Your task to perform on an android device: Go to wifi settings Image 0: 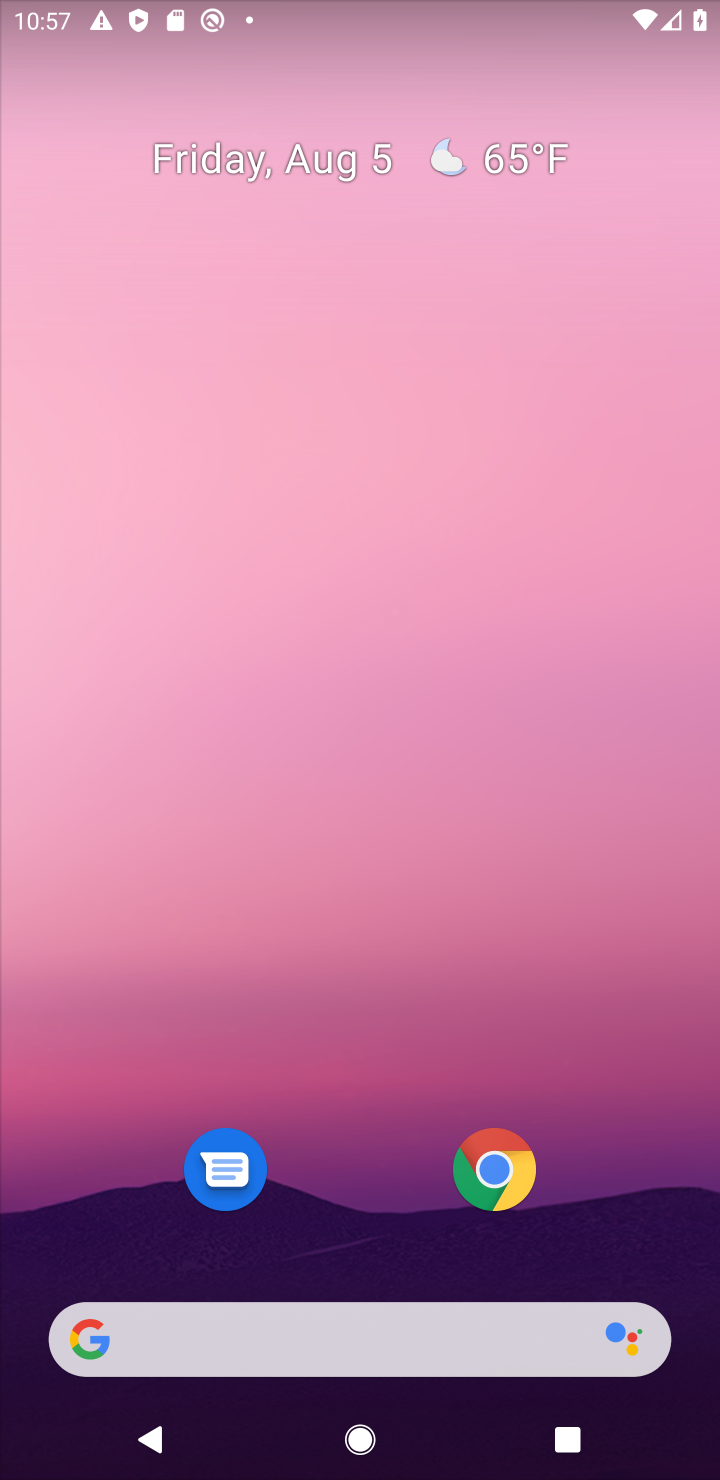
Step 0: drag from (358, 811) to (441, 2)
Your task to perform on an android device: Go to wifi settings Image 1: 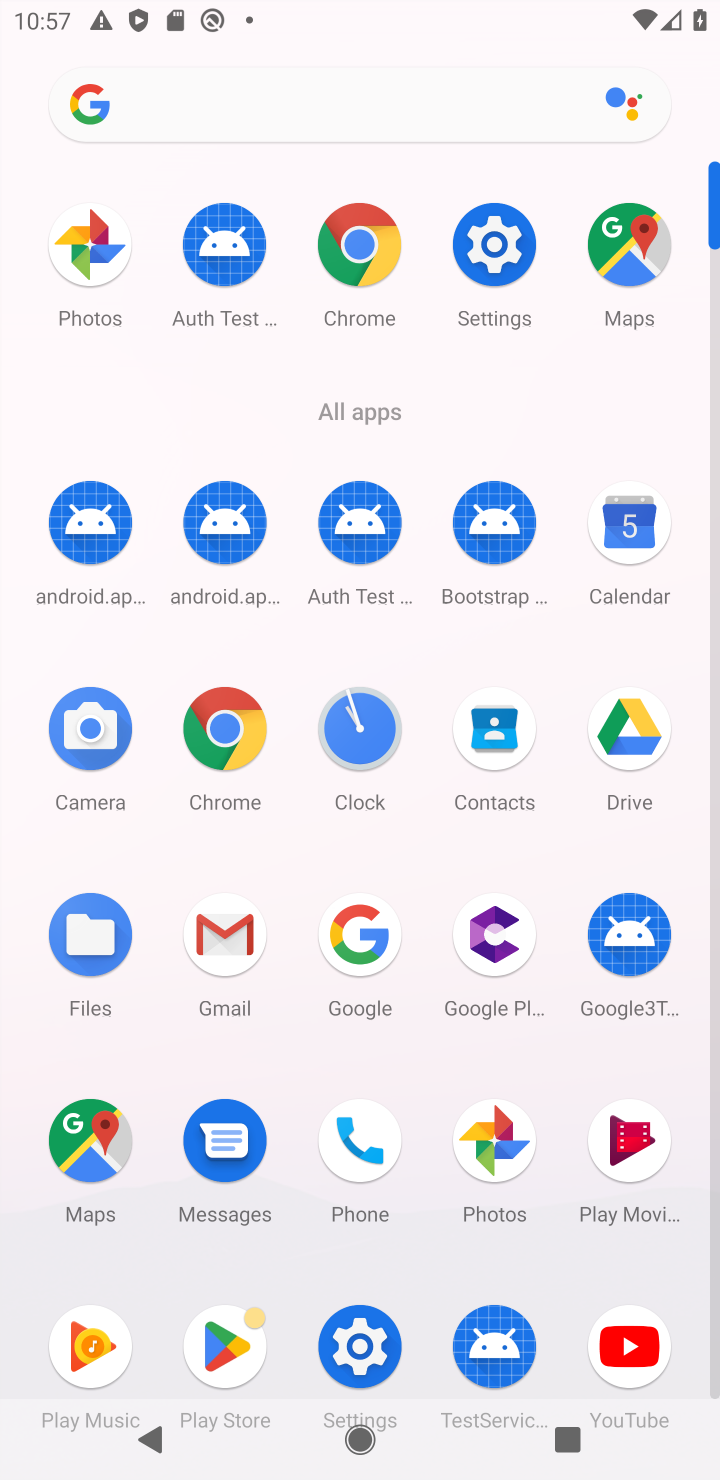
Step 1: click (475, 215)
Your task to perform on an android device: Go to wifi settings Image 2: 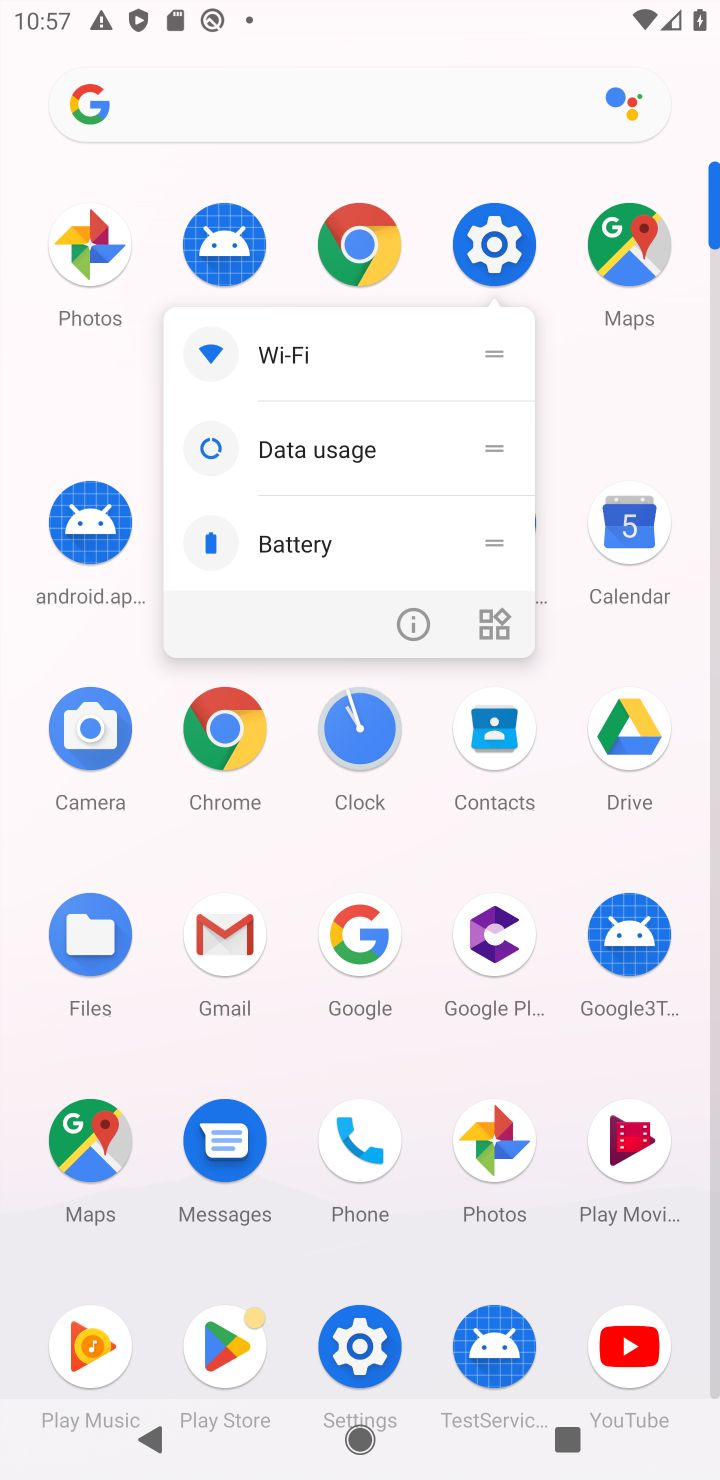
Step 2: click (505, 216)
Your task to perform on an android device: Go to wifi settings Image 3: 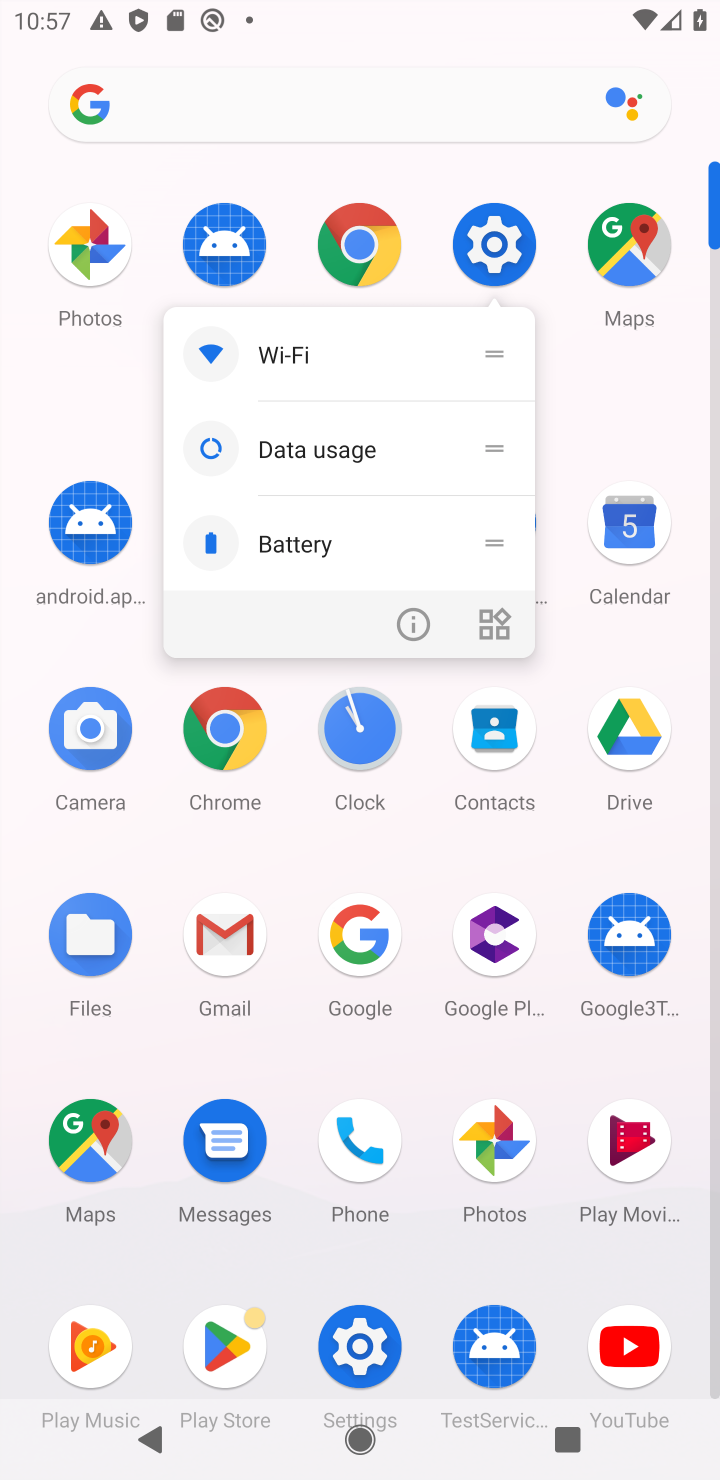
Step 3: click (488, 243)
Your task to perform on an android device: Go to wifi settings Image 4: 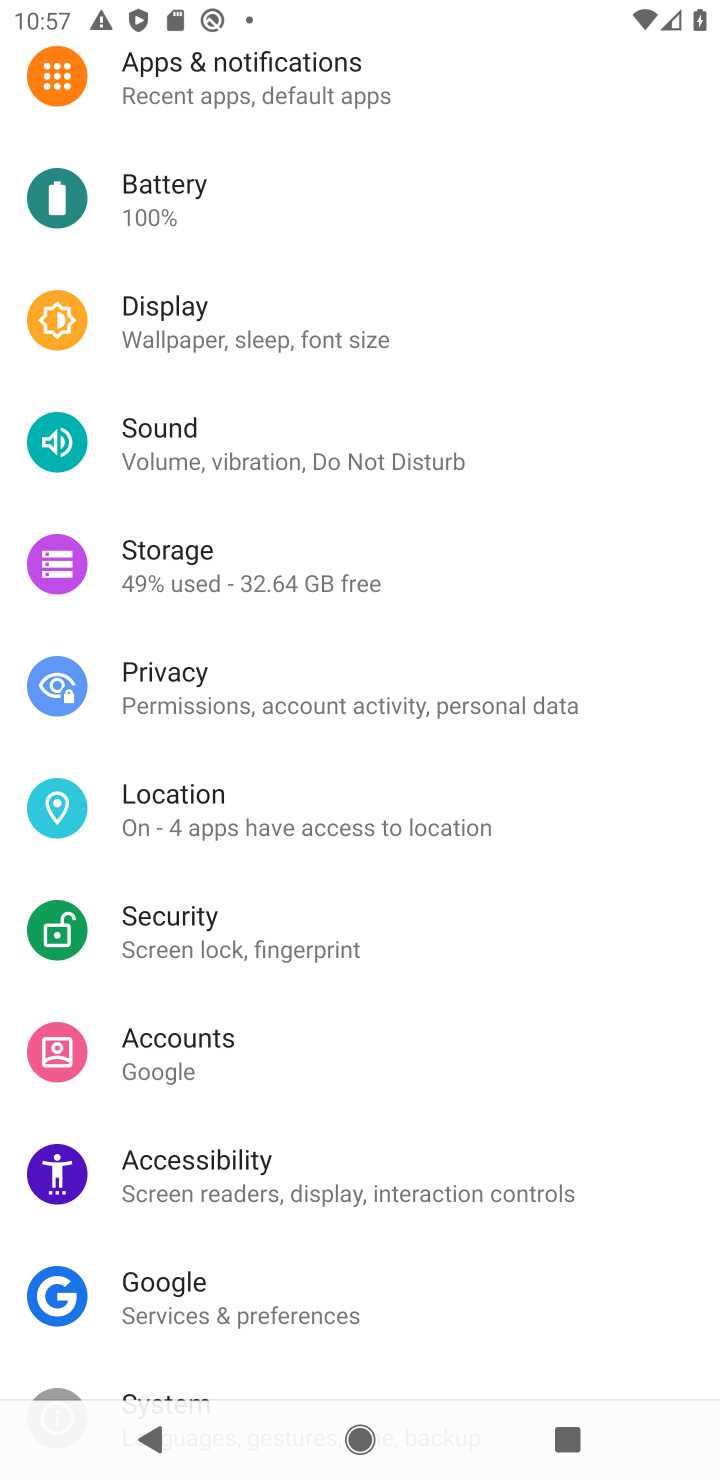
Step 4: drag from (281, 356) to (313, 916)
Your task to perform on an android device: Go to wifi settings Image 5: 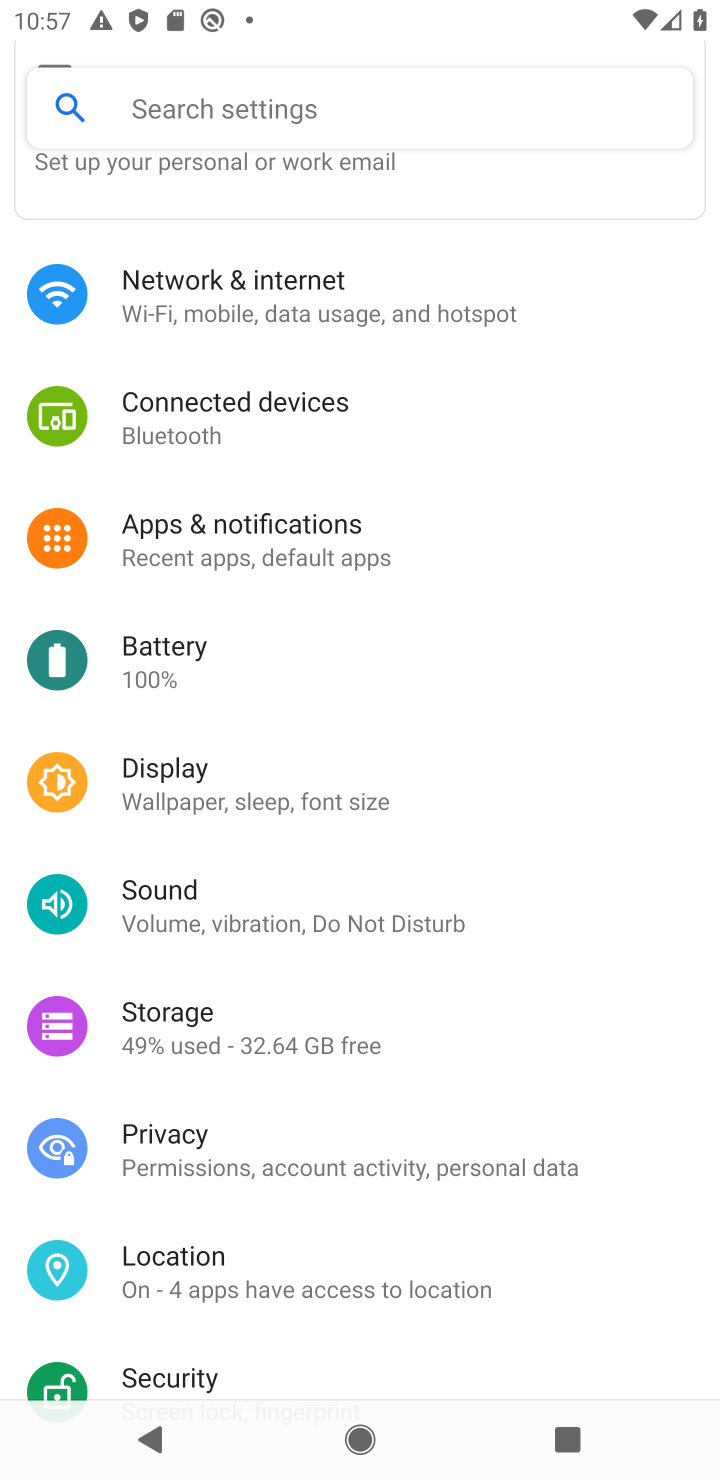
Step 5: click (247, 315)
Your task to perform on an android device: Go to wifi settings Image 6: 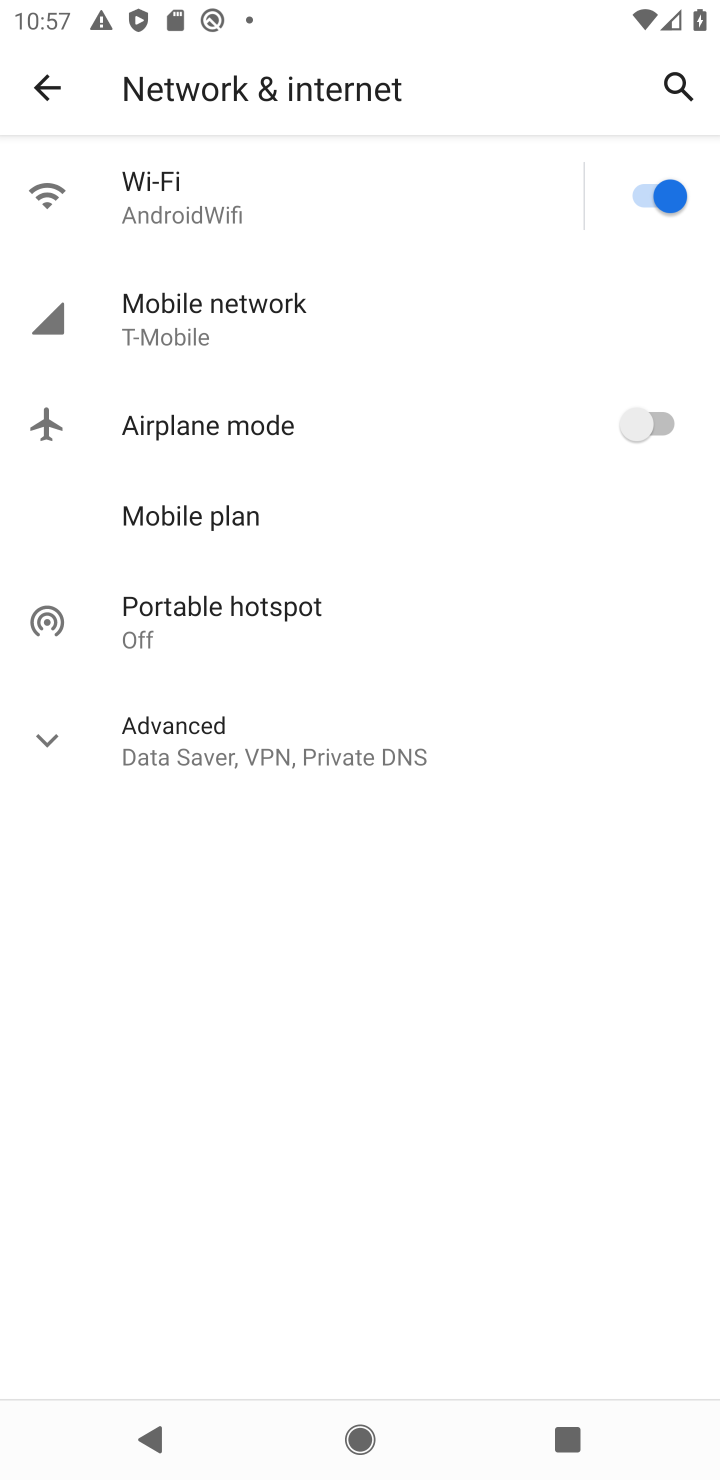
Step 6: task complete